Your task to perform on an android device: Open Wikipedia Image 0: 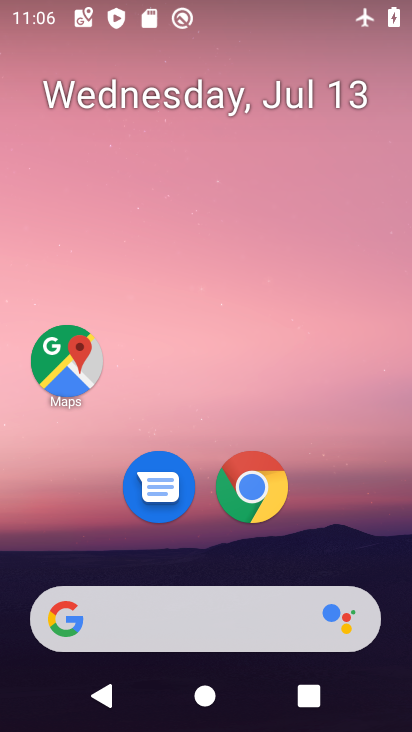
Step 0: drag from (227, 580) to (160, 9)
Your task to perform on an android device: Open Wikipedia Image 1: 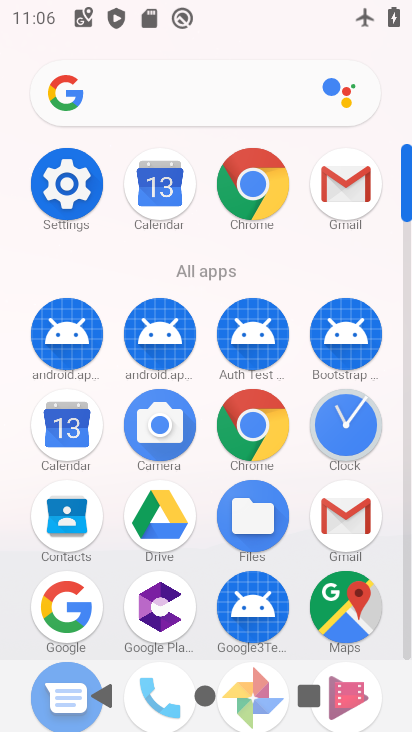
Step 1: click (246, 422)
Your task to perform on an android device: Open Wikipedia Image 2: 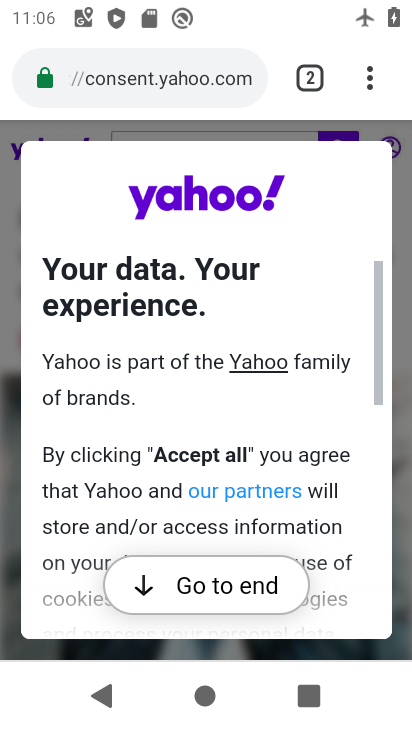
Step 2: click (293, 69)
Your task to perform on an android device: Open Wikipedia Image 3: 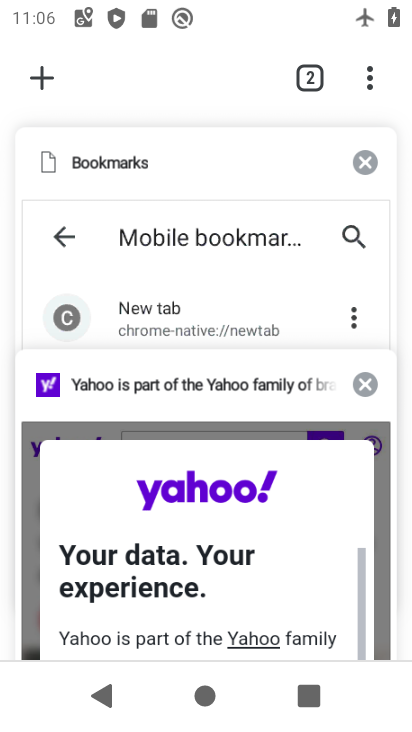
Step 3: click (49, 64)
Your task to perform on an android device: Open Wikipedia Image 4: 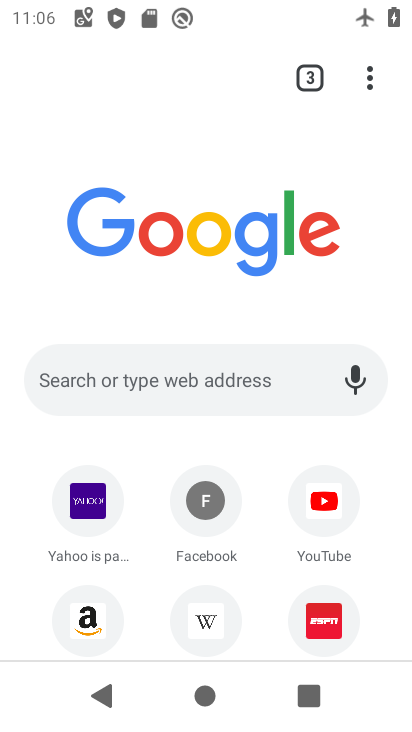
Step 4: click (193, 612)
Your task to perform on an android device: Open Wikipedia Image 5: 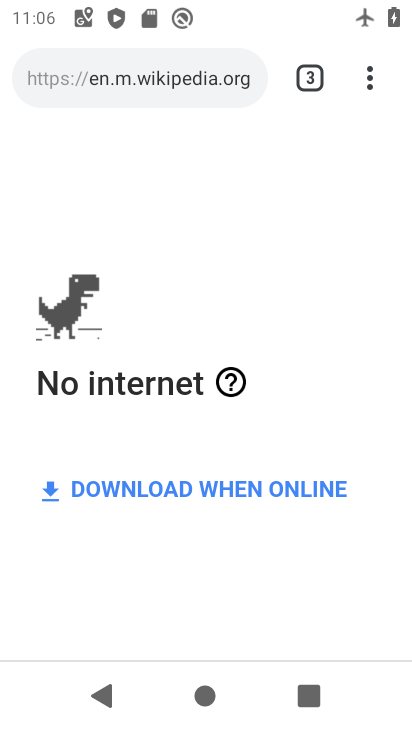
Step 5: task complete